Your task to perform on an android device: Show me popular games on the Play Store Image 0: 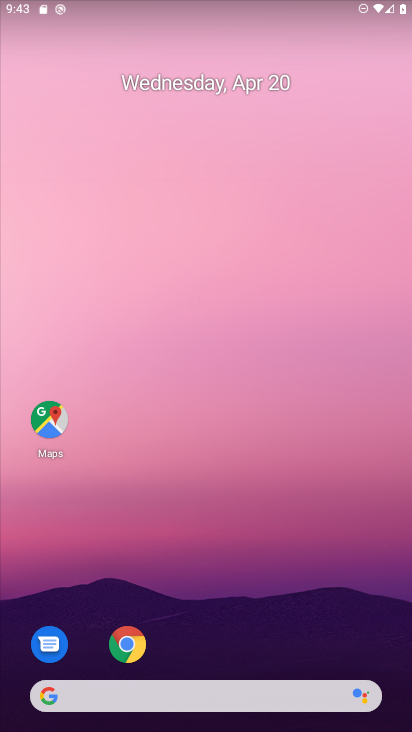
Step 0: click (189, 51)
Your task to perform on an android device: Show me popular games on the Play Store Image 1: 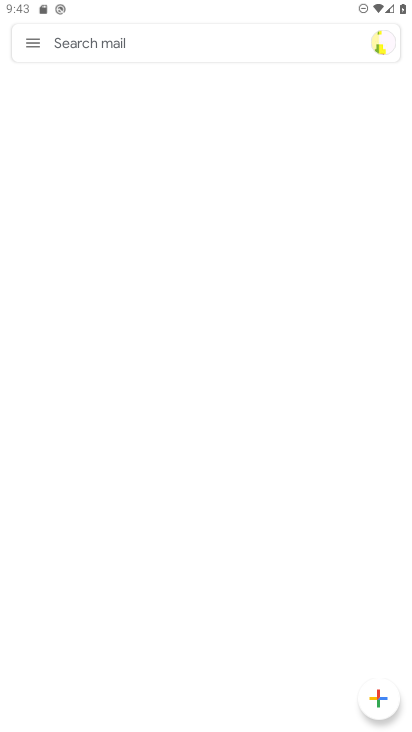
Step 1: press back button
Your task to perform on an android device: Show me popular games on the Play Store Image 2: 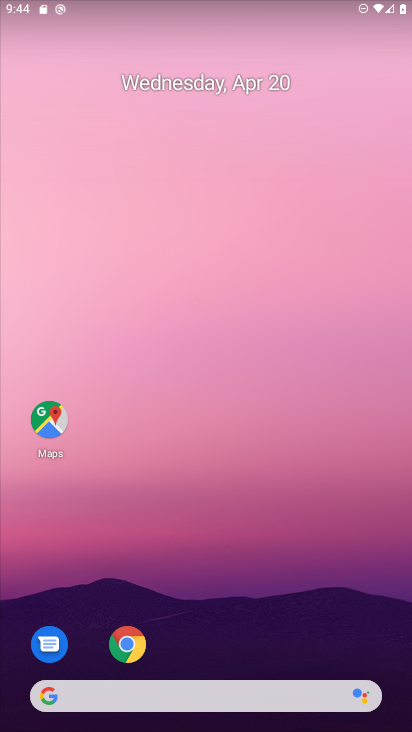
Step 2: drag from (314, 629) to (216, 4)
Your task to perform on an android device: Show me popular games on the Play Store Image 3: 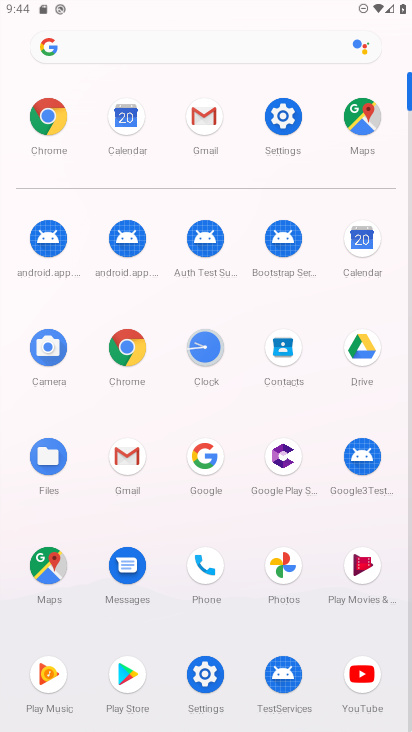
Step 3: click (123, 676)
Your task to perform on an android device: Show me popular games on the Play Store Image 4: 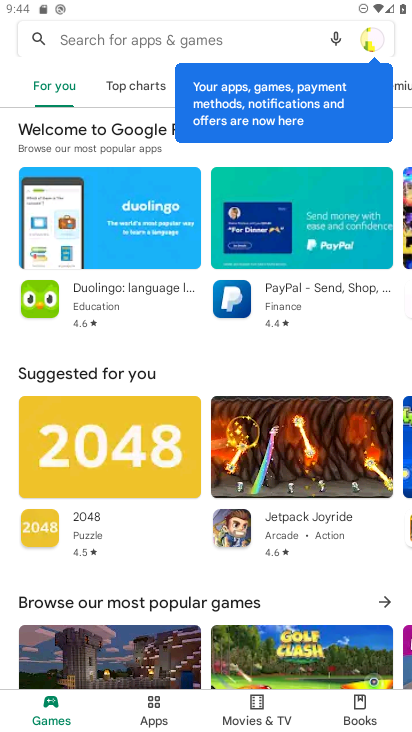
Step 4: task complete